Your task to perform on an android device: toggle data saver in the chrome app Image 0: 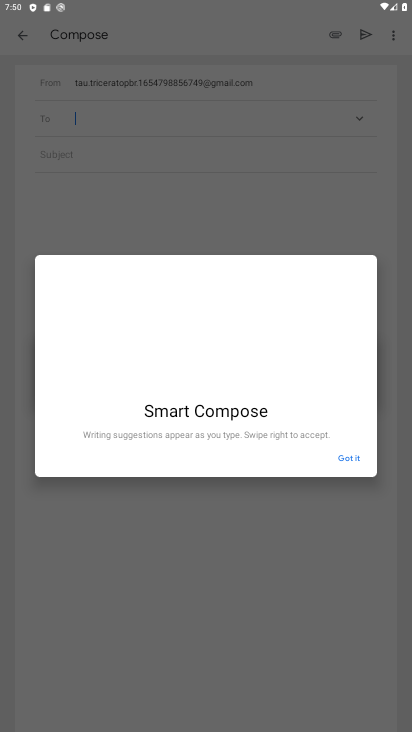
Step 0: press home button
Your task to perform on an android device: toggle data saver in the chrome app Image 1: 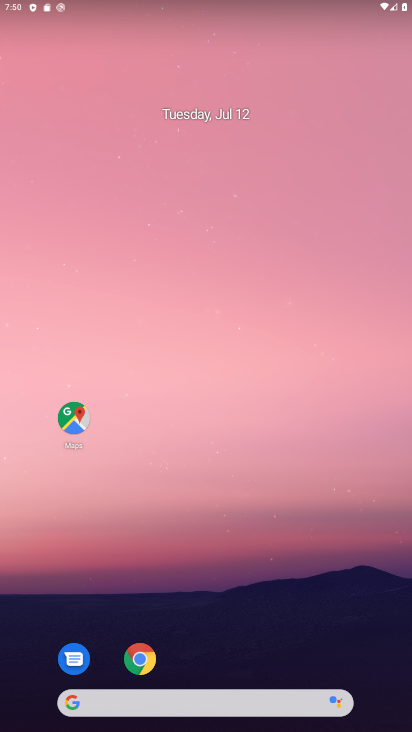
Step 1: drag from (336, 585) to (335, 98)
Your task to perform on an android device: toggle data saver in the chrome app Image 2: 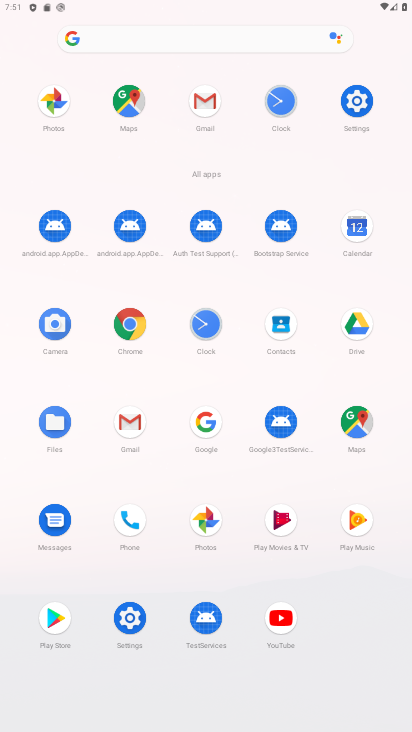
Step 2: click (131, 326)
Your task to perform on an android device: toggle data saver in the chrome app Image 3: 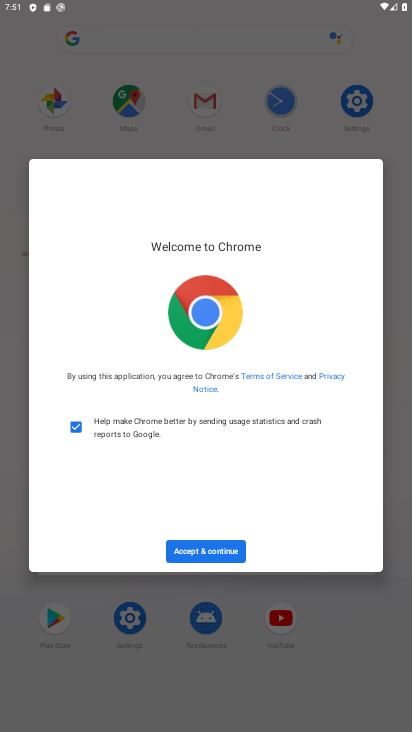
Step 3: click (183, 548)
Your task to perform on an android device: toggle data saver in the chrome app Image 4: 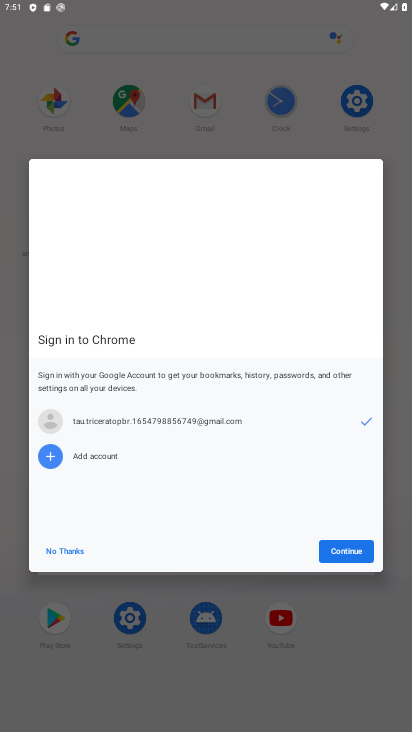
Step 4: click (344, 551)
Your task to perform on an android device: toggle data saver in the chrome app Image 5: 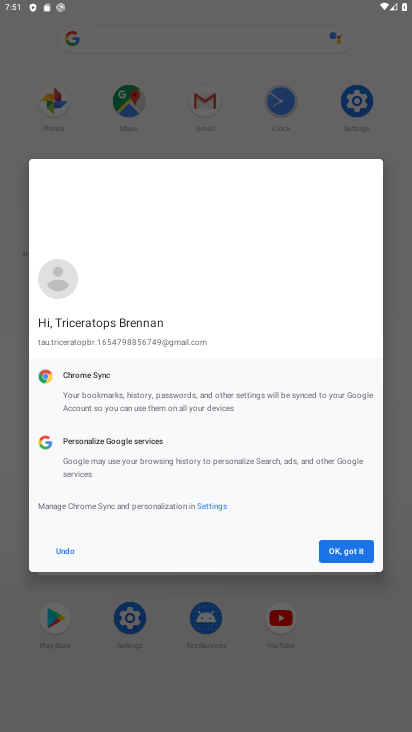
Step 5: click (344, 551)
Your task to perform on an android device: toggle data saver in the chrome app Image 6: 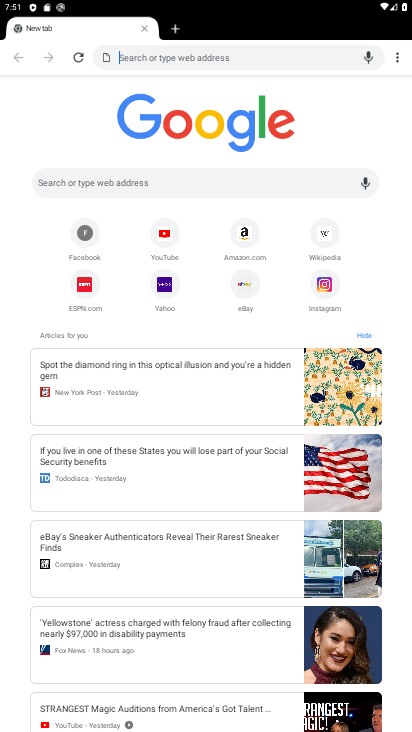
Step 6: click (396, 61)
Your task to perform on an android device: toggle data saver in the chrome app Image 7: 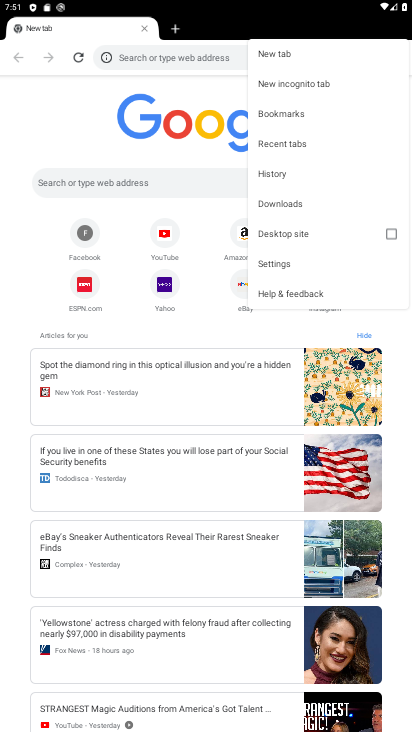
Step 7: click (301, 268)
Your task to perform on an android device: toggle data saver in the chrome app Image 8: 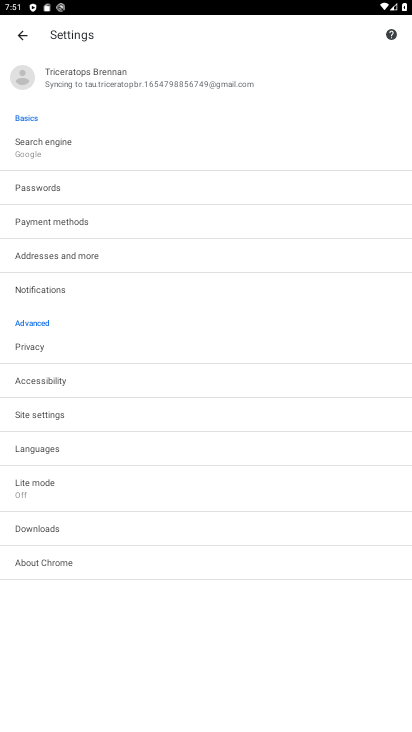
Step 8: click (168, 485)
Your task to perform on an android device: toggle data saver in the chrome app Image 9: 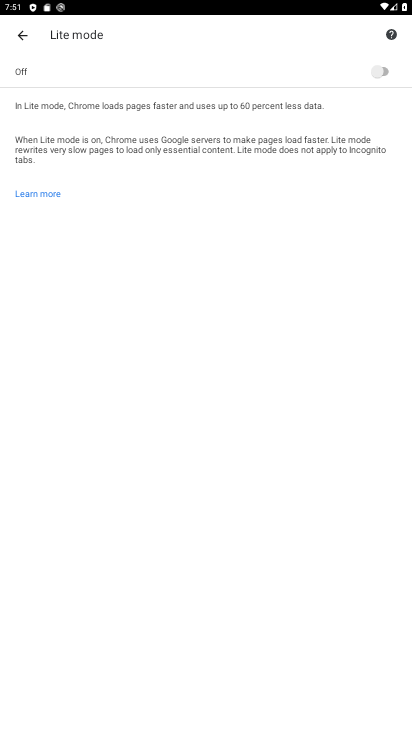
Step 9: click (376, 72)
Your task to perform on an android device: toggle data saver in the chrome app Image 10: 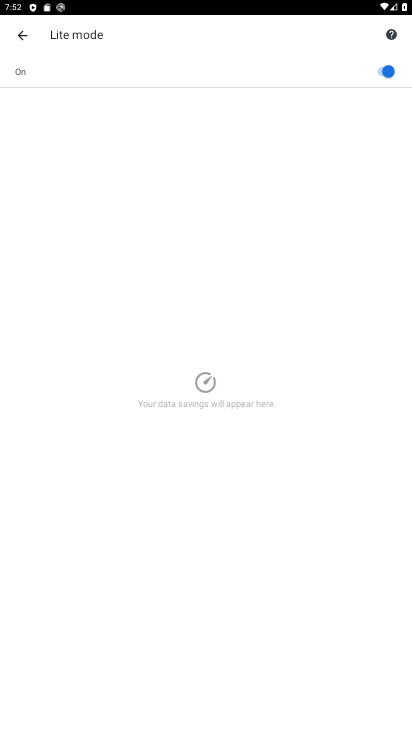
Step 10: task complete